Your task to perform on an android device: all mails in gmail Image 0: 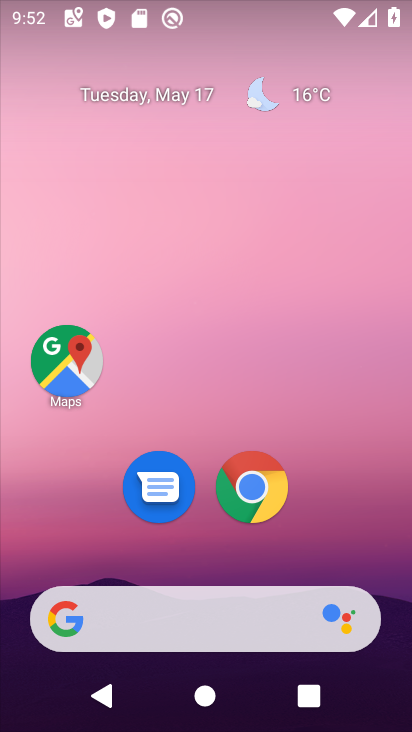
Step 0: drag from (206, 481) to (165, 86)
Your task to perform on an android device: all mails in gmail Image 1: 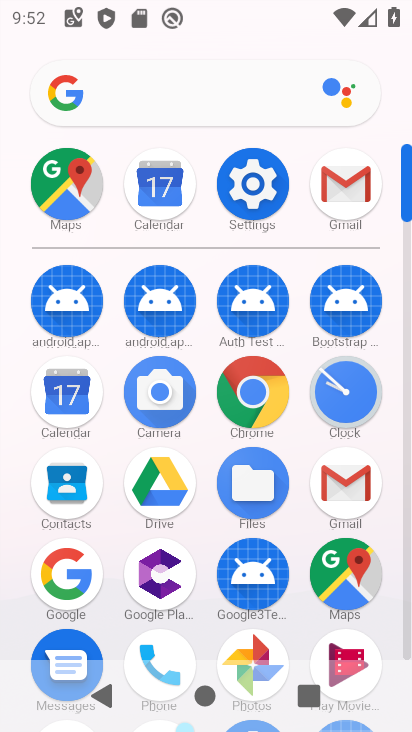
Step 1: click (341, 496)
Your task to perform on an android device: all mails in gmail Image 2: 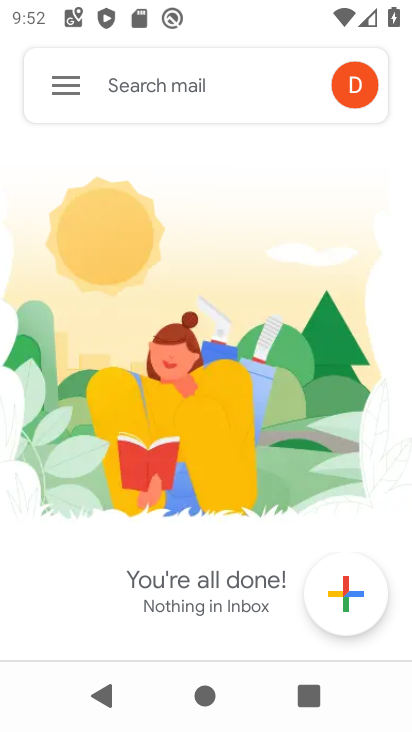
Step 2: click (59, 81)
Your task to perform on an android device: all mails in gmail Image 3: 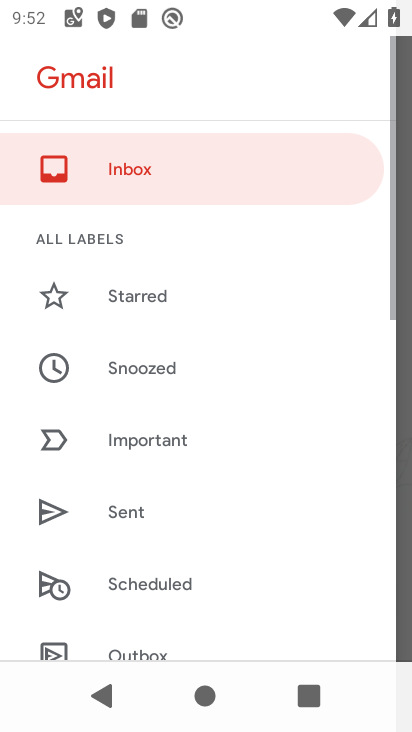
Step 3: drag from (138, 534) to (208, 123)
Your task to perform on an android device: all mails in gmail Image 4: 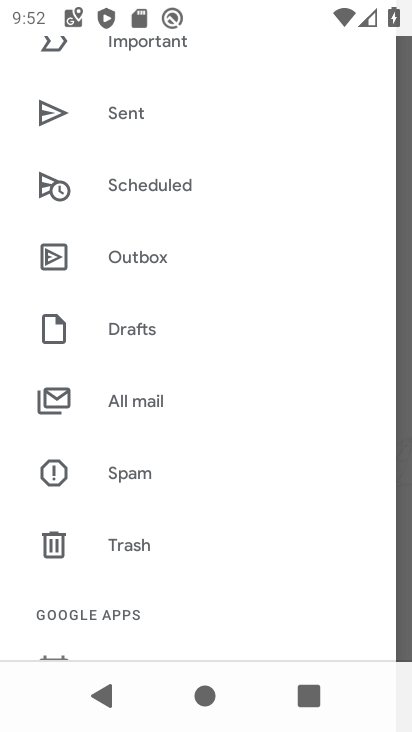
Step 4: click (139, 414)
Your task to perform on an android device: all mails in gmail Image 5: 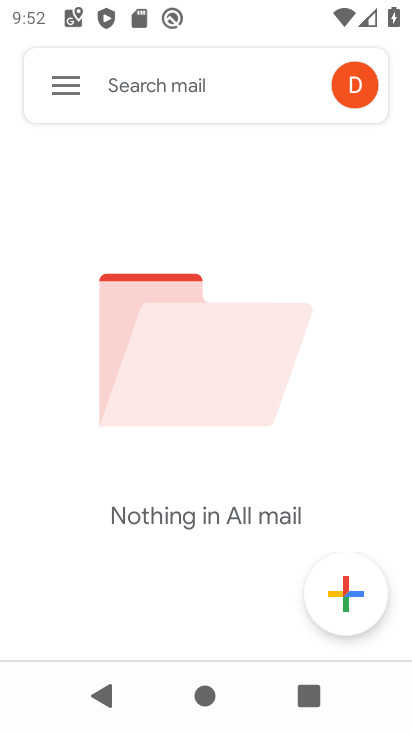
Step 5: task complete